Your task to perform on an android device: install app "DoorDash - Dasher" Image 0: 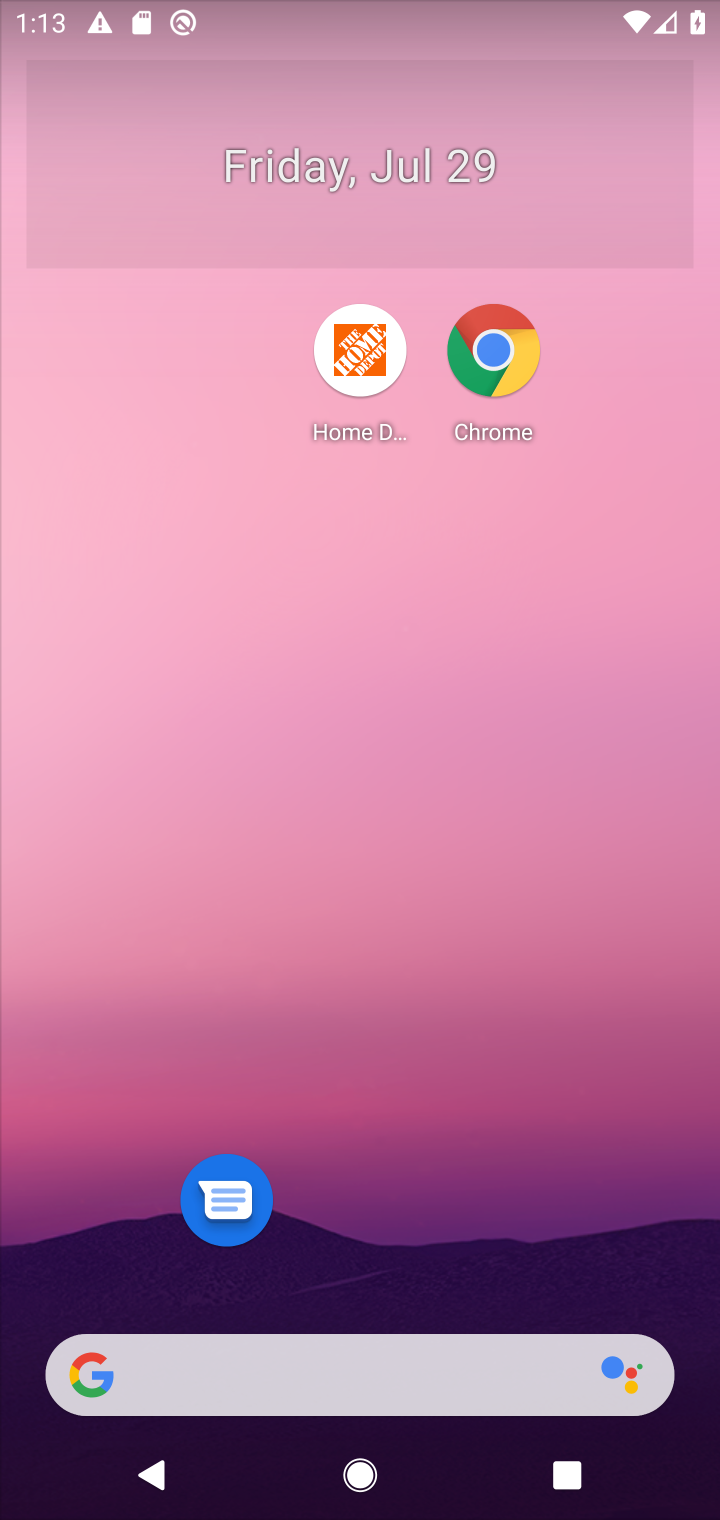
Step 0: drag from (494, 1158) to (459, 66)
Your task to perform on an android device: install app "DoorDash - Dasher" Image 1: 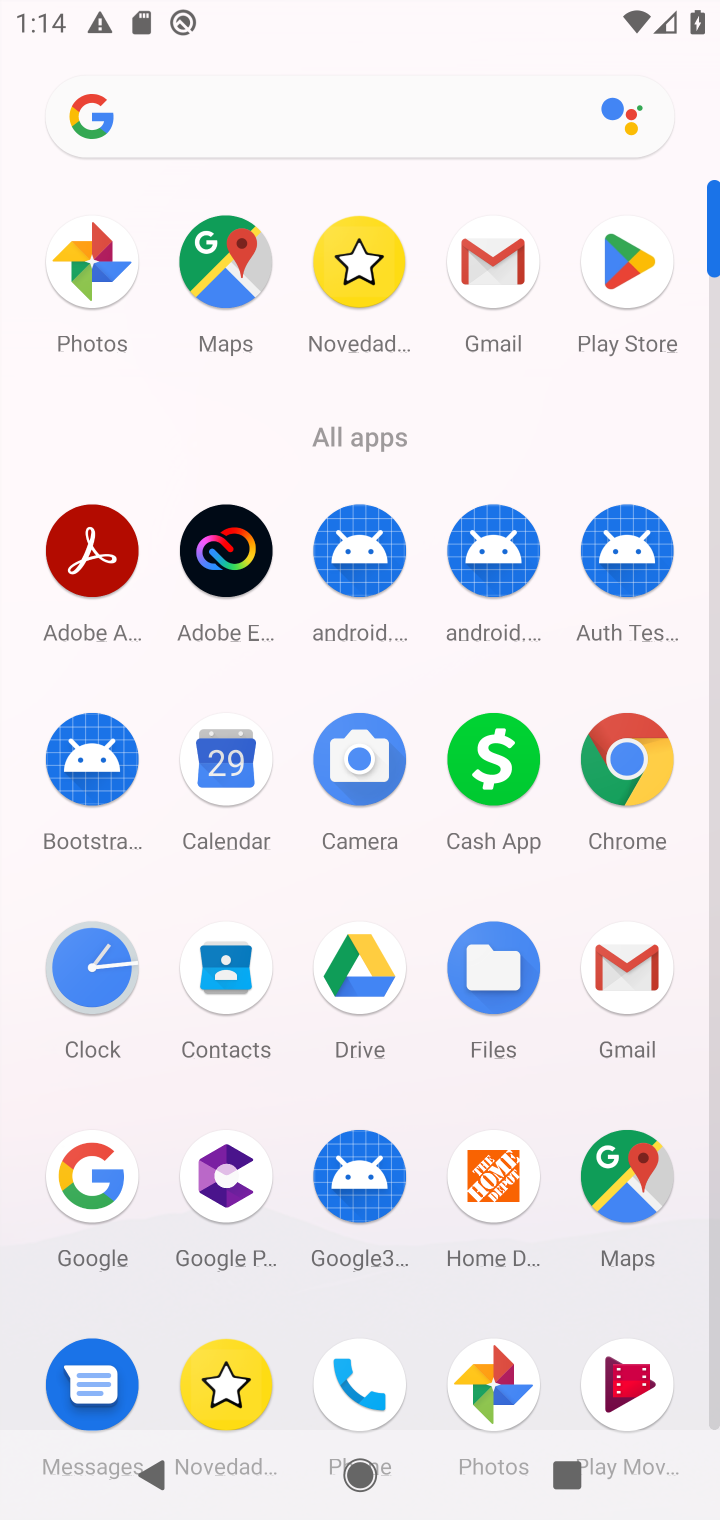
Step 1: click (608, 264)
Your task to perform on an android device: install app "DoorDash - Dasher" Image 2: 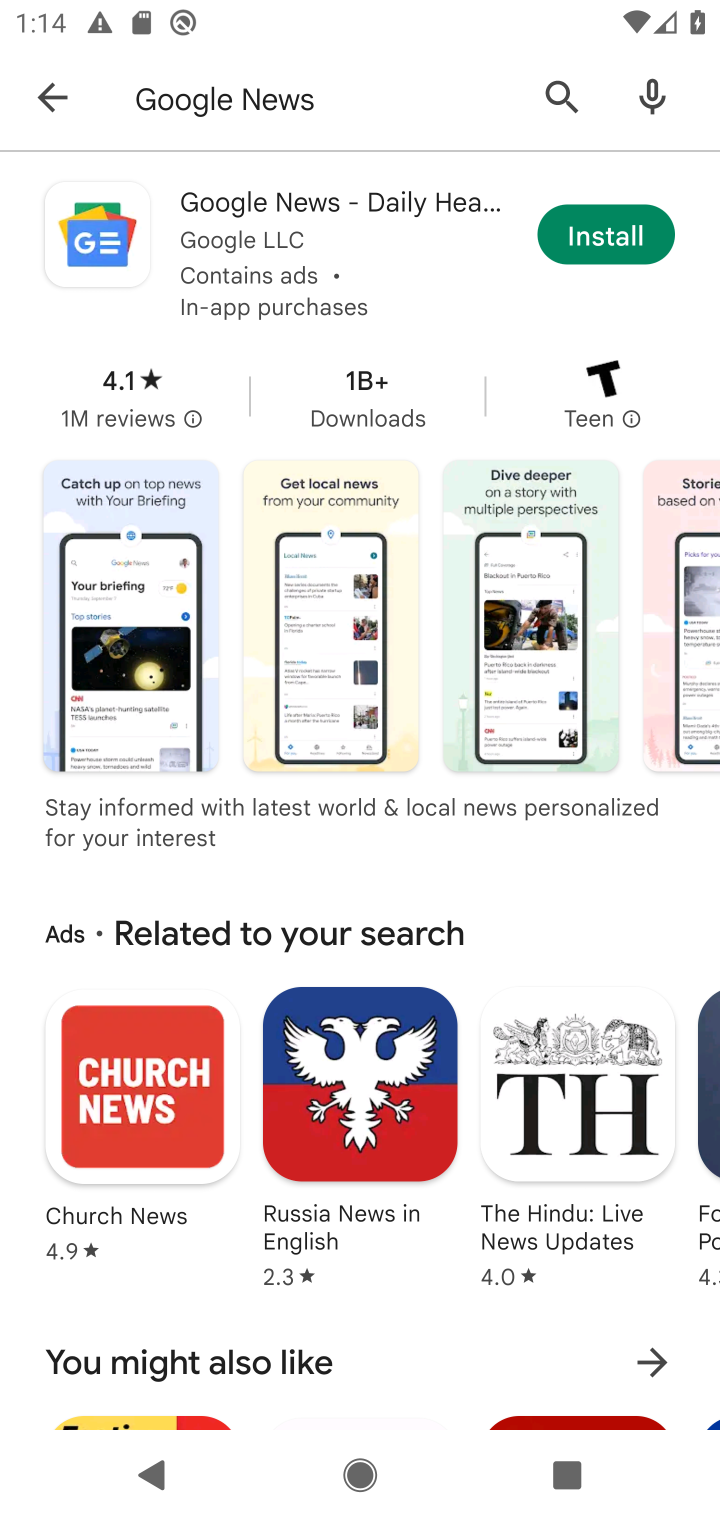
Step 2: click (321, 117)
Your task to perform on an android device: install app "DoorDash - Dasher" Image 3: 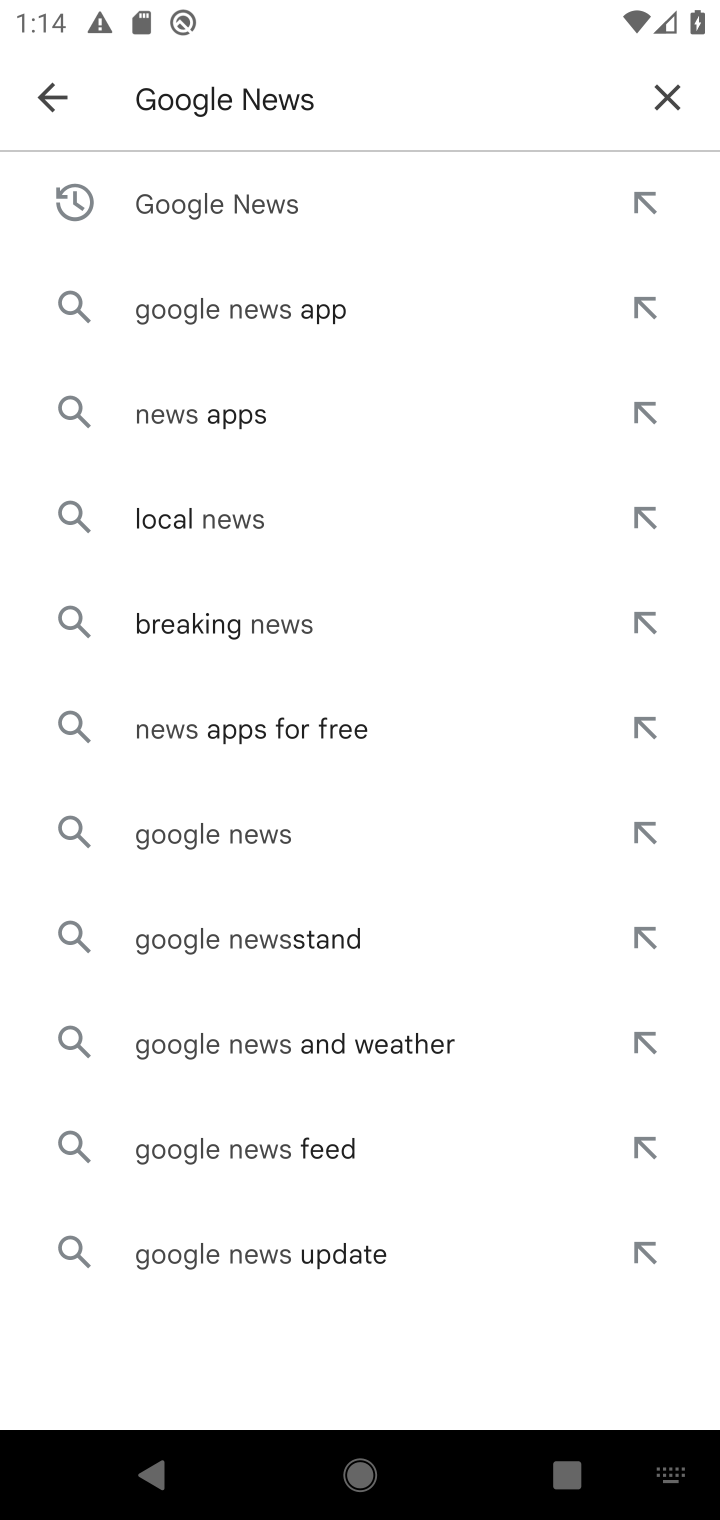
Step 3: click (695, 102)
Your task to perform on an android device: install app "DoorDash - Dasher" Image 4: 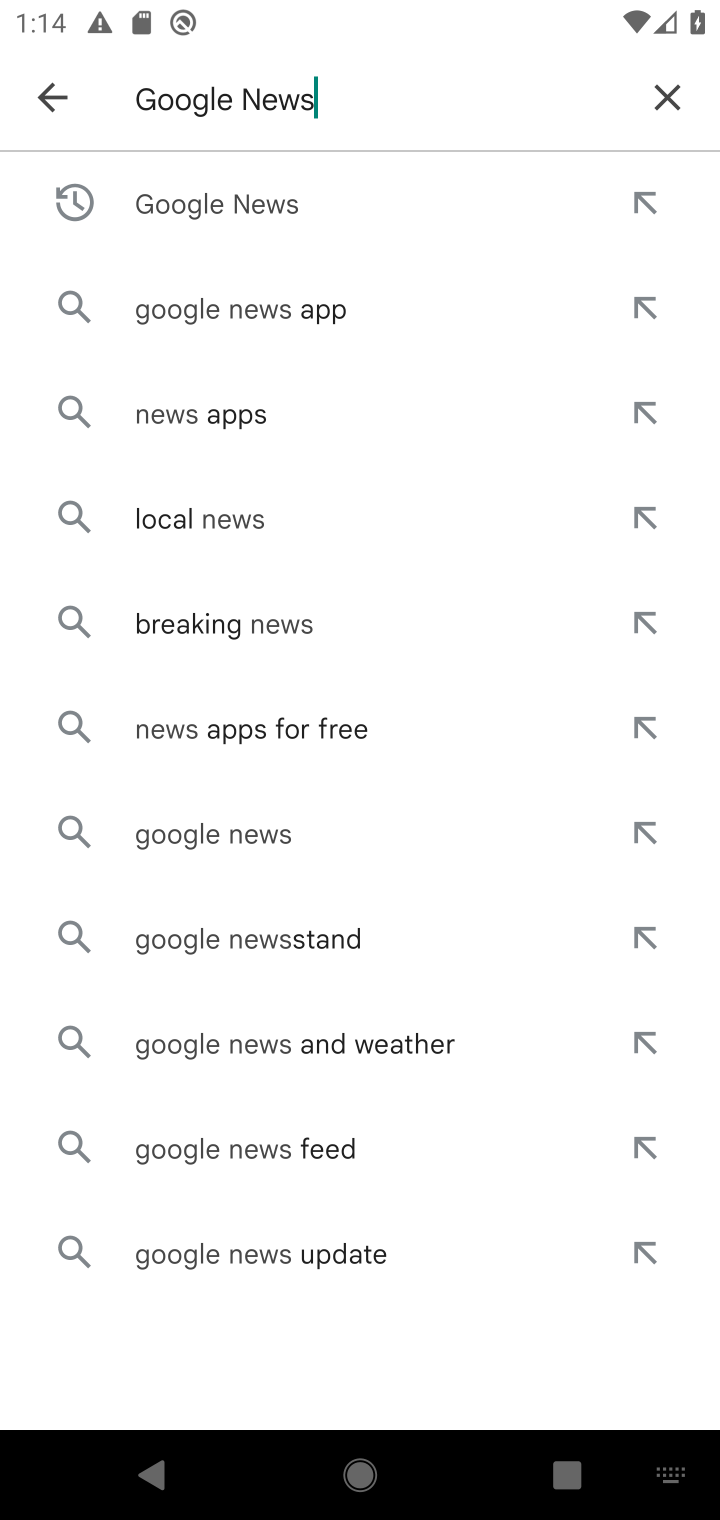
Step 4: click (680, 93)
Your task to perform on an android device: install app "DoorDash - Dasher" Image 5: 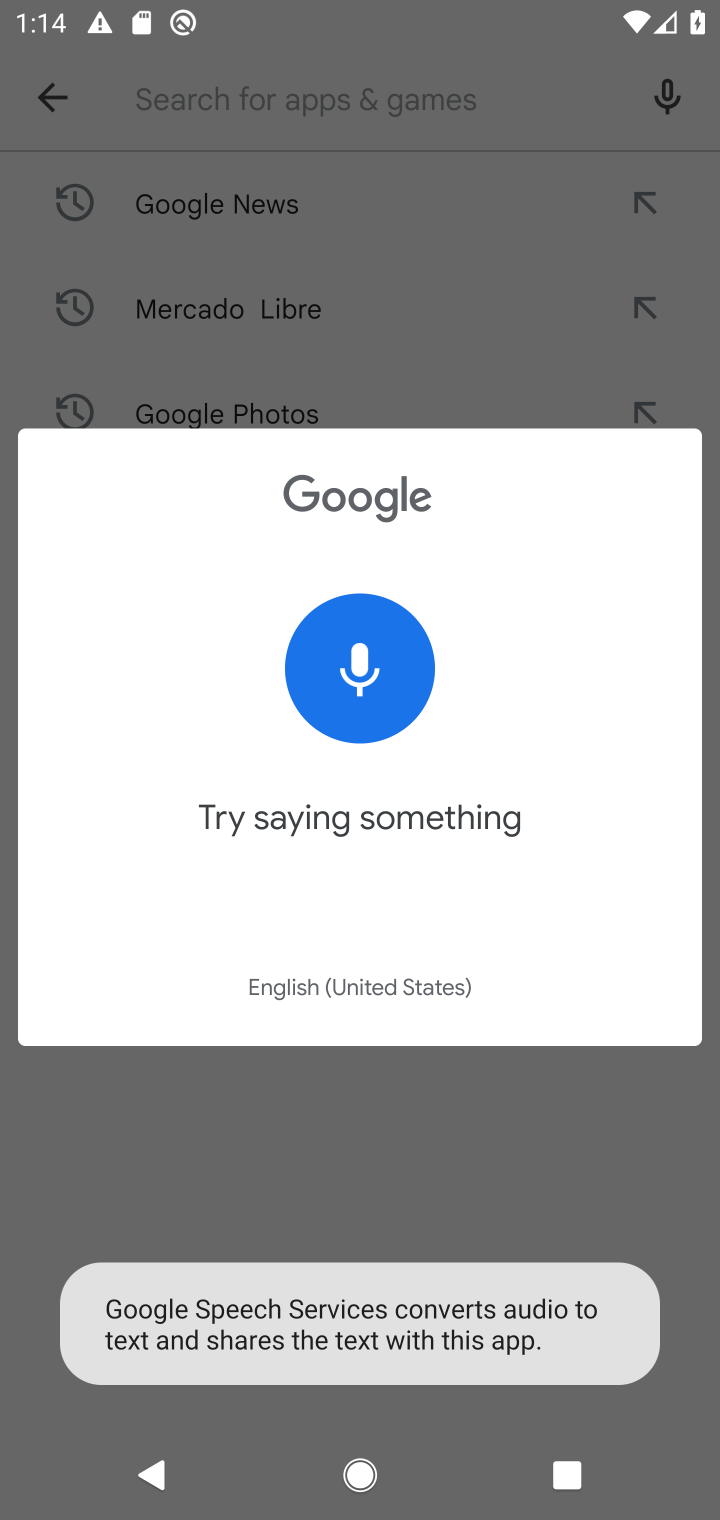
Step 5: click (318, 96)
Your task to perform on an android device: install app "DoorDash - Dasher" Image 6: 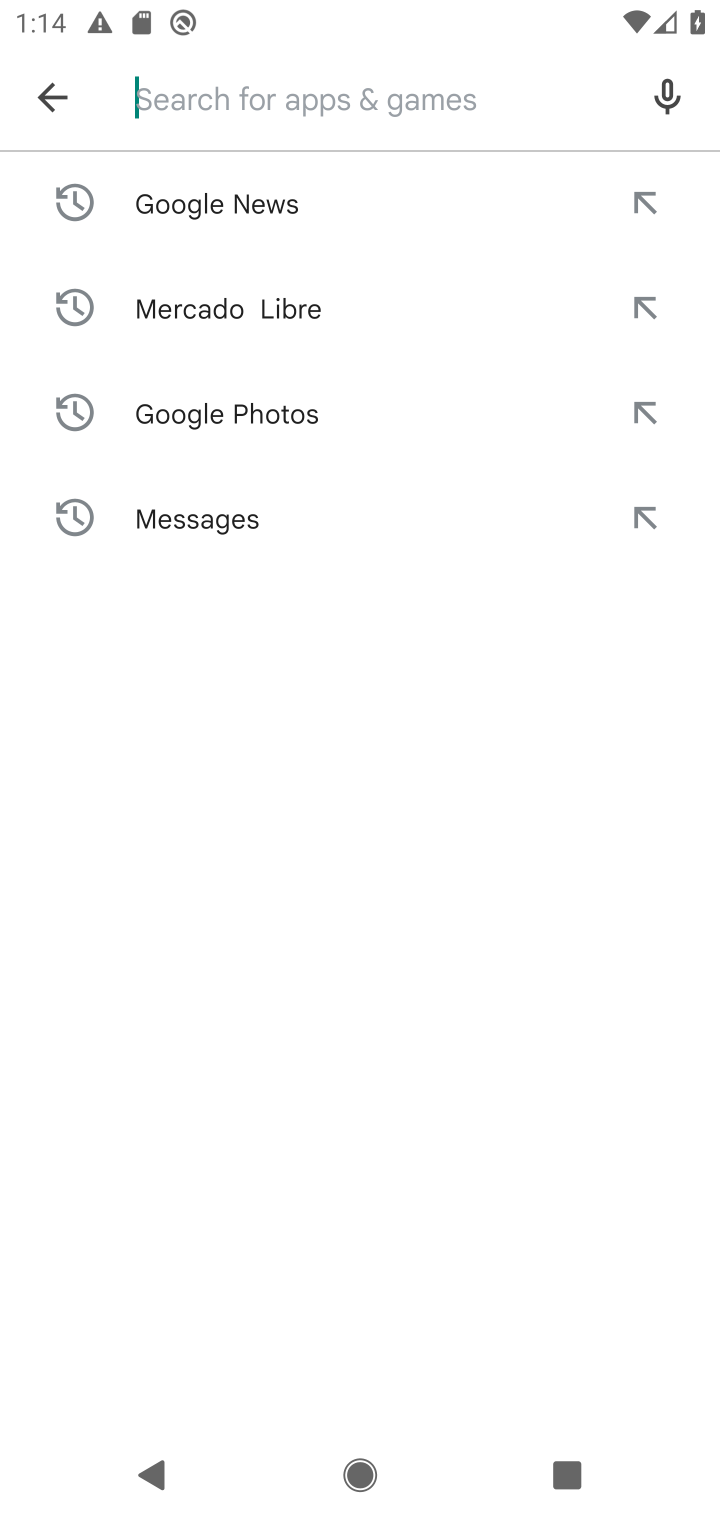
Step 6: click (318, 96)
Your task to perform on an android device: install app "DoorDash - Dasher" Image 7: 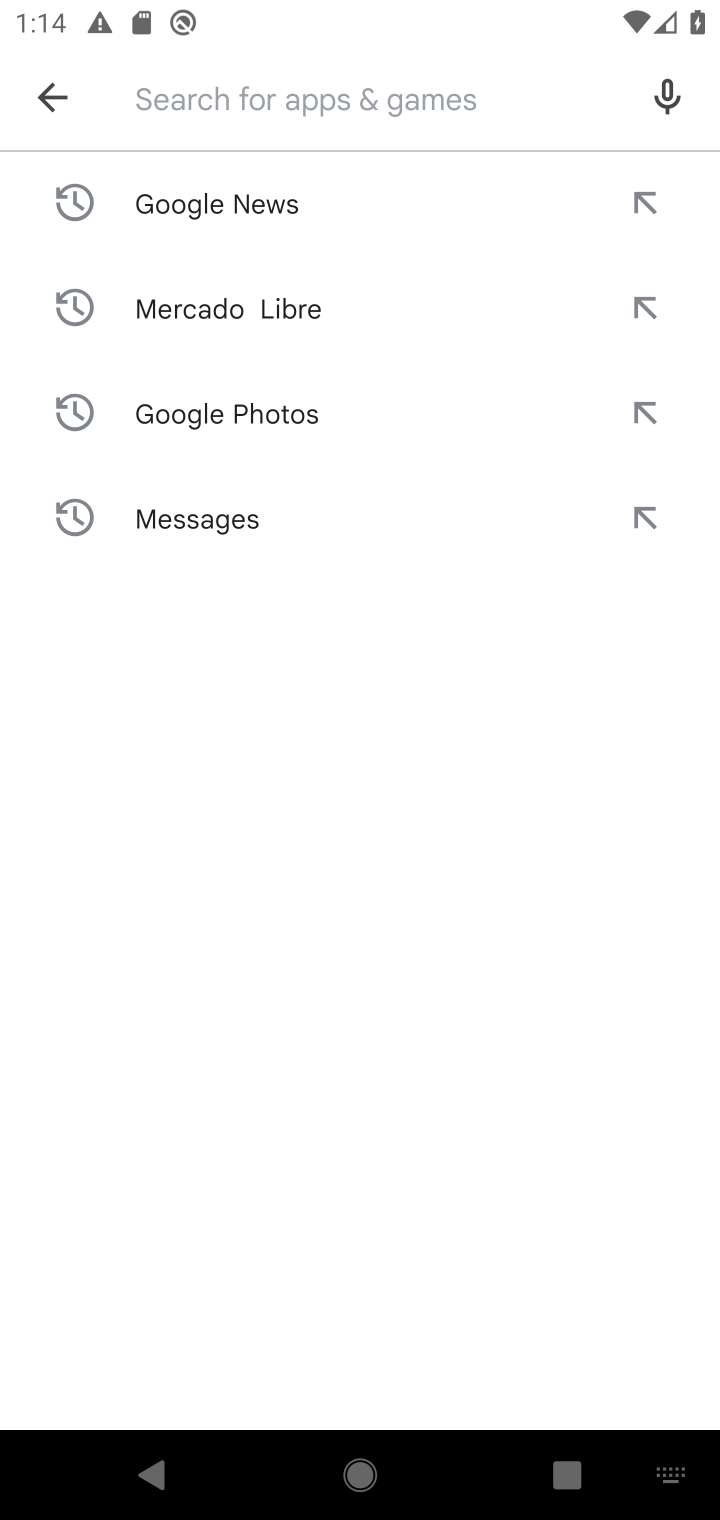
Step 7: type "DoorDash - Dasher"
Your task to perform on an android device: install app "DoorDash - Dasher" Image 8: 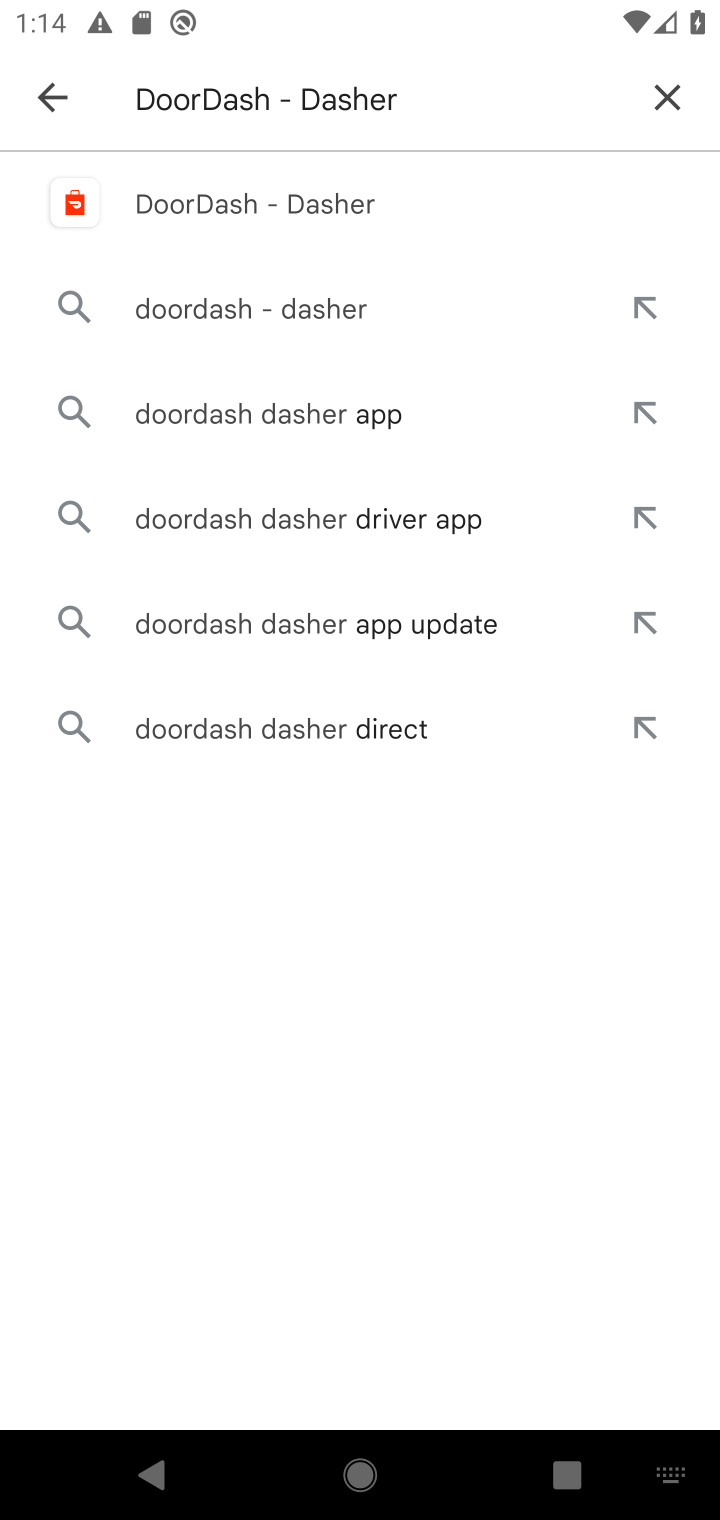
Step 8: press enter
Your task to perform on an android device: install app "DoorDash - Dasher" Image 9: 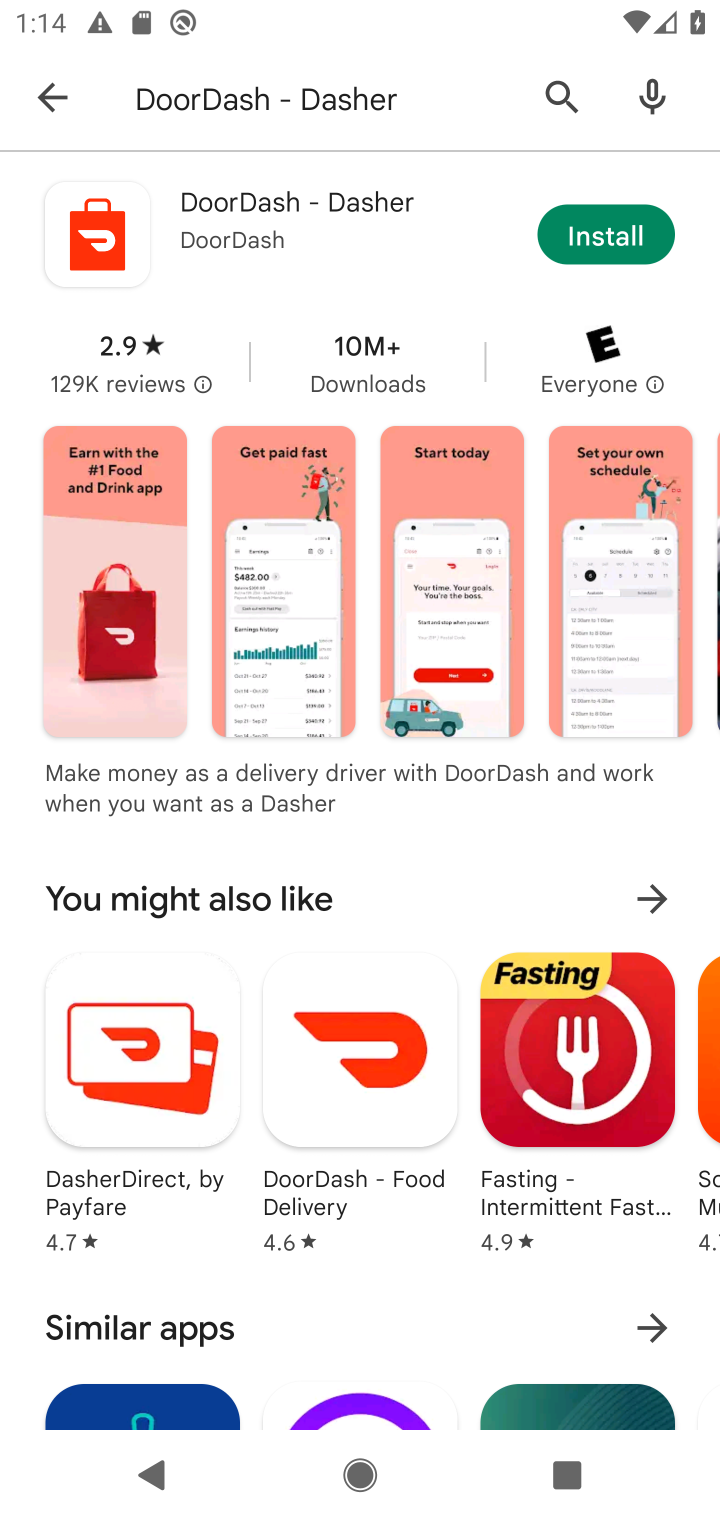
Step 9: click (593, 247)
Your task to perform on an android device: install app "DoorDash - Dasher" Image 10: 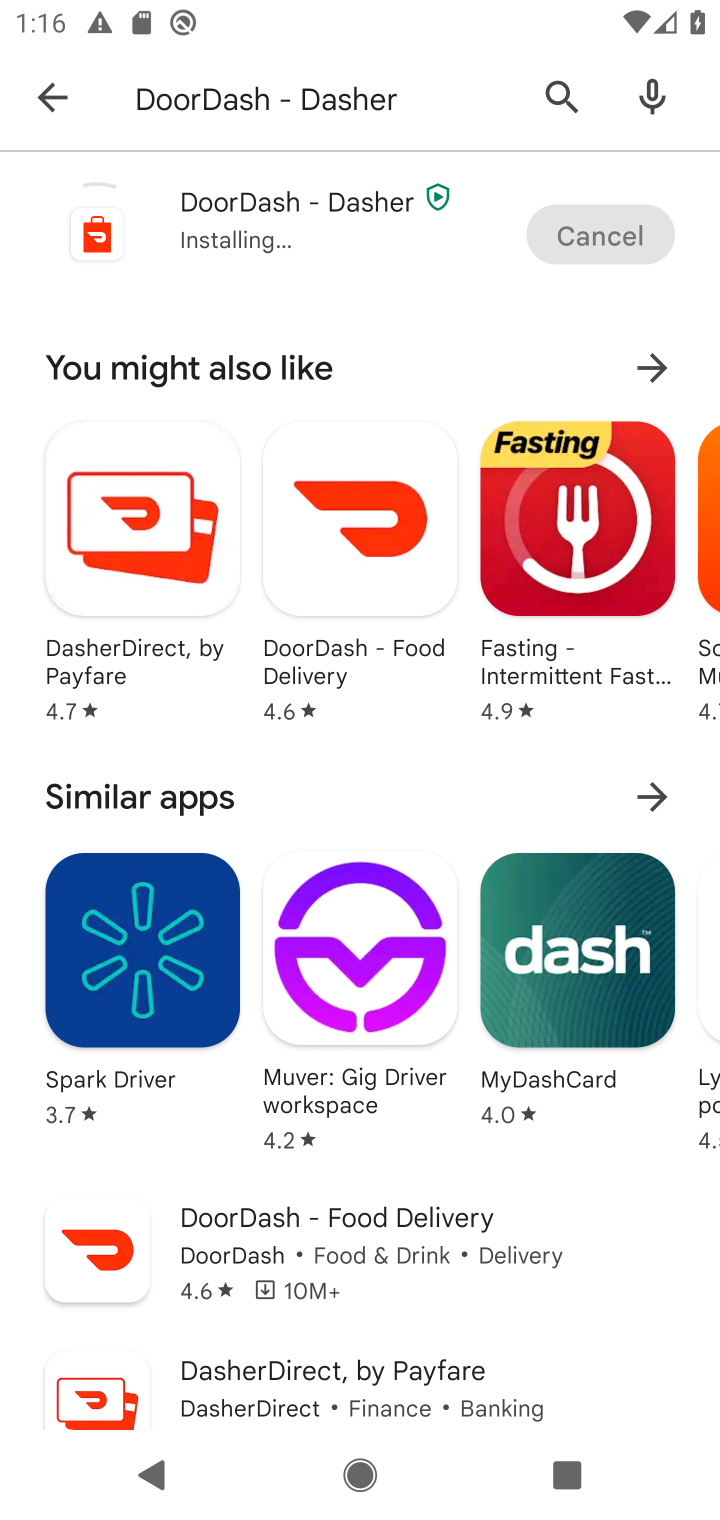
Step 10: task complete